Your task to perform on an android device: check out phone information Image 0: 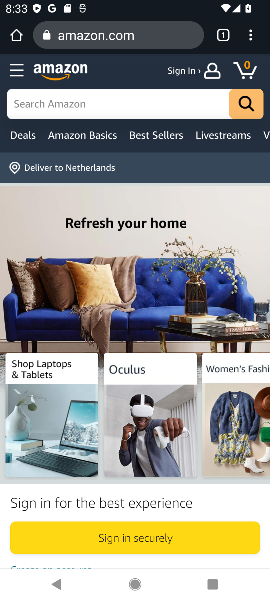
Step 0: press home button
Your task to perform on an android device: check out phone information Image 1: 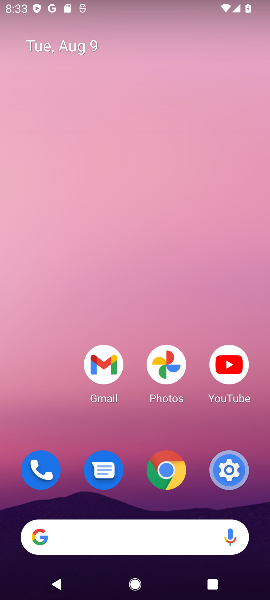
Step 1: click (233, 468)
Your task to perform on an android device: check out phone information Image 2: 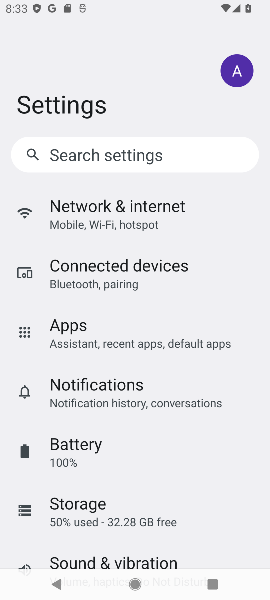
Step 2: drag from (109, 535) to (121, 65)
Your task to perform on an android device: check out phone information Image 3: 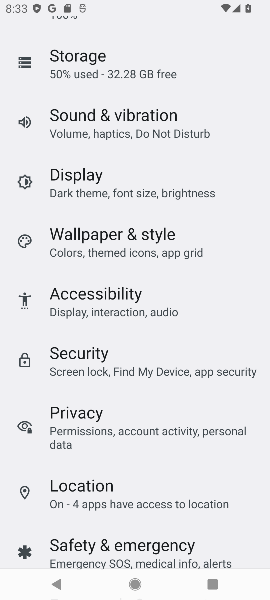
Step 3: drag from (175, 536) to (169, 32)
Your task to perform on an android device: check out phone information Image 4: 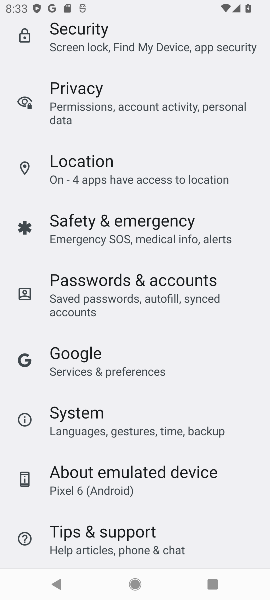
Step 4: drag from (169, 517) to (171, 118)
Your task to perform on an android device: check out phone information Image 5: 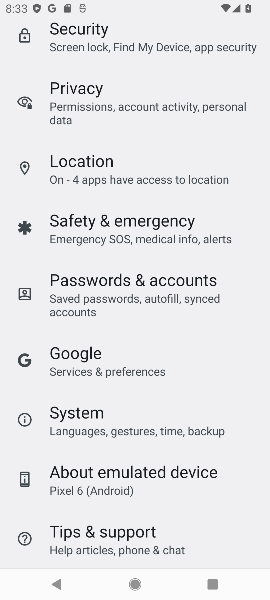
Step 5: click (168, 472)
Your task to perform on an android device: check out phone information Image 6: 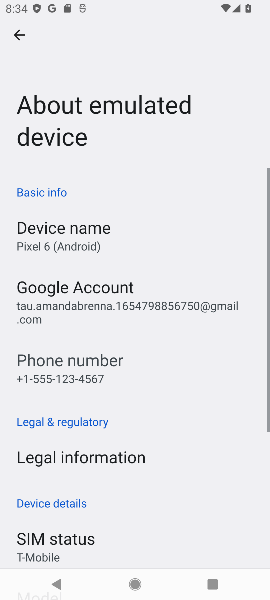
Step 6: task complete